Your task to perform on an android device: Open privacy settings Image 0: 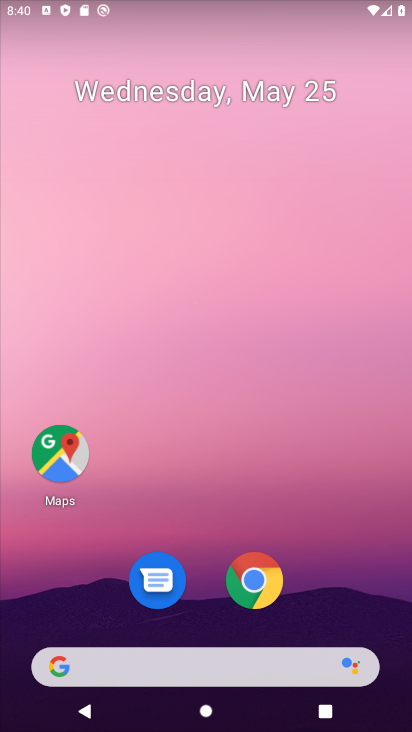
Step 0: press home button
Your task to perform on an android device: Open privacy settings Image 1: 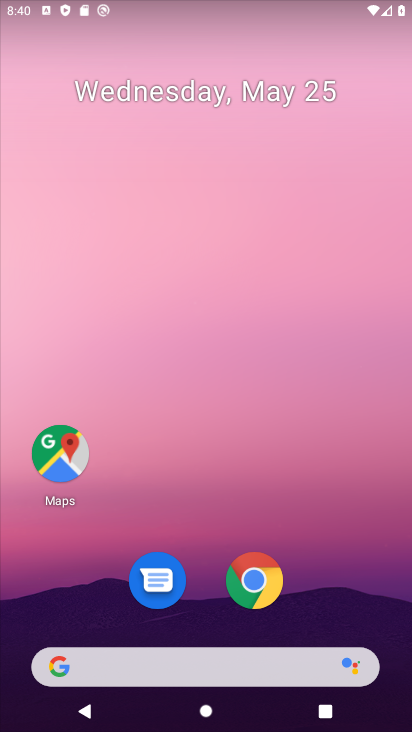
Step 1: drag from (54, 496) to (255, 34)
Your task to perform on an android device: Open privacy settings Image 2: 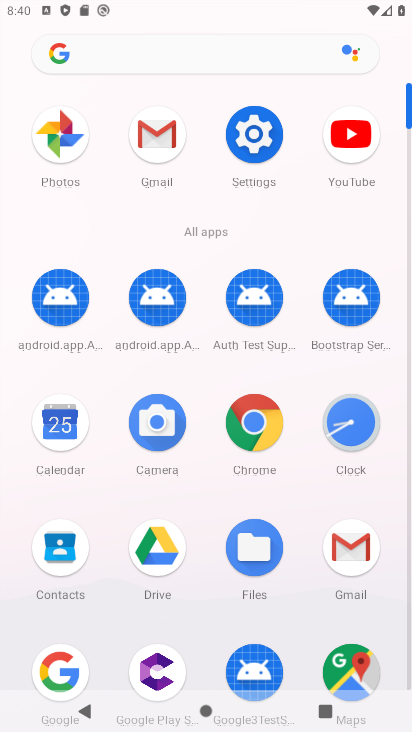
Step 2: click (254, 129)
Your task to perform on an android device: Open privacy settings Image 3: 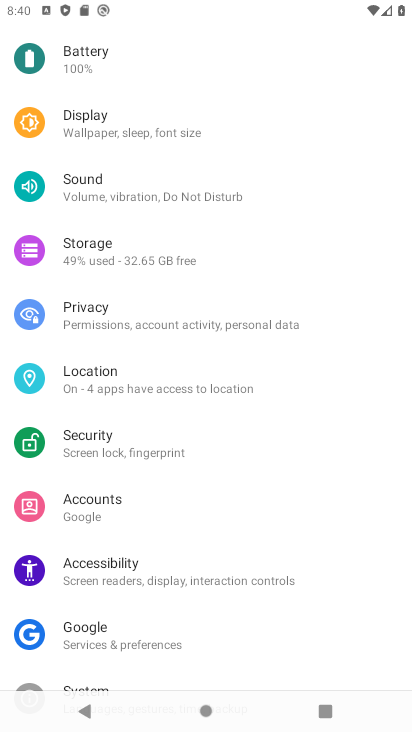
Step 3: click (120, 310)
Your task to perform on an android device: Open privacy settings Image 4: 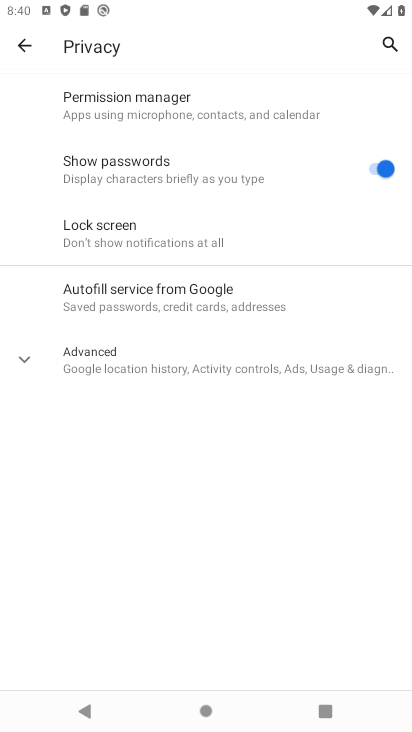
Step 4: task complete